Your task to perform on an android device: Open maps Image 0: 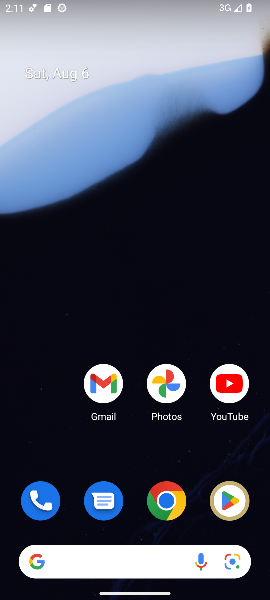
Step 0: drag from (153, 494) to (260, 126)
Your task to perform on an android device: Open maps Image 1: 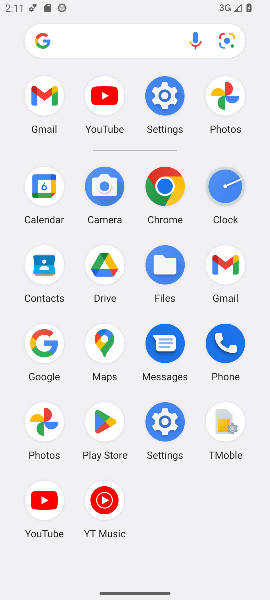
Step 1: click (111, 352)
Your task to perform on an android device: Open maps Image 2: 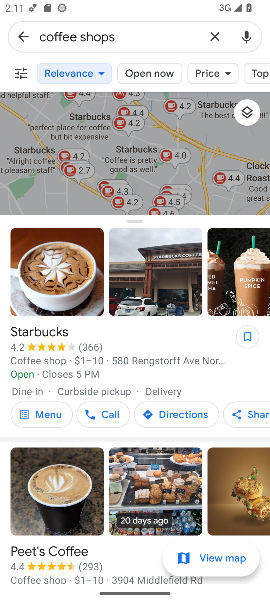
Step 2: click (19, 35)
Your task to perform on an android device: Open maps Image 3: 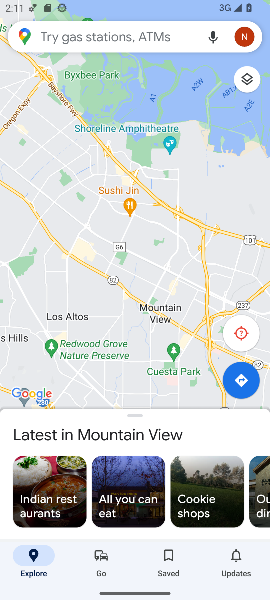
Step 3: task complete